Your task to perform on an android device: delete browsing data in the chrome app Image 0: 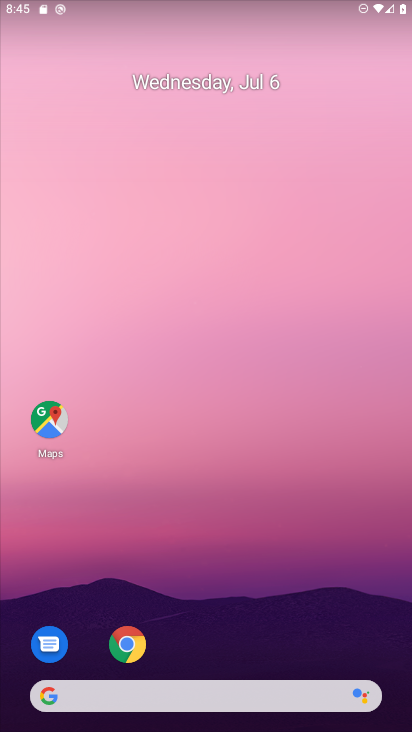
Step 0: click (138, 660)
Your task to perform on an android device: delete browsing data in the chrome app Image 1: 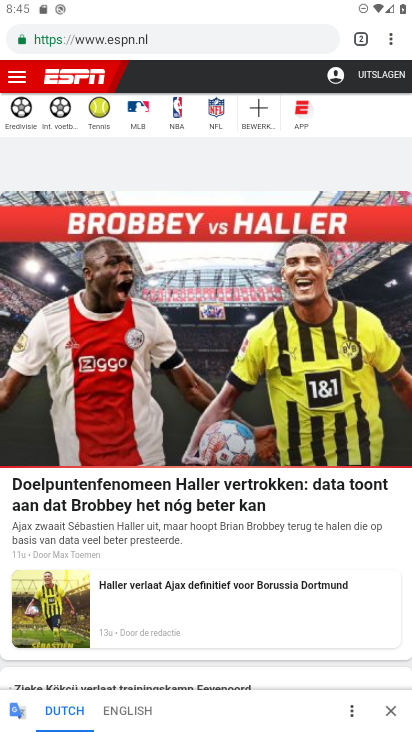
Step 1: click (388, 38)
Your task to perform on an android device: delete browsing data in the chrome app Image 2: 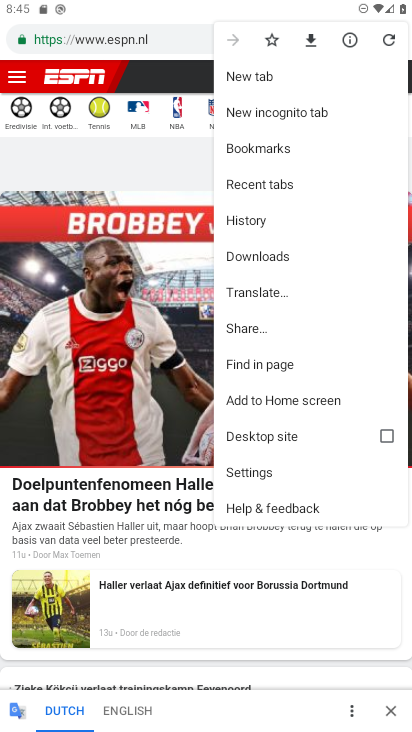
Step 2: click (249, 226)
Your task to perform on an android device: delete browsing data in the chrome app Image 3: 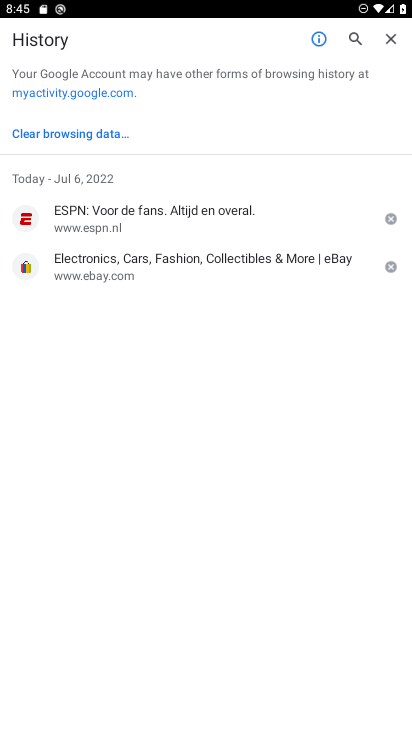
Step 3: click (65, 126)
Your task to perform on an android device: delete browsing data in the chrome app Image 4: 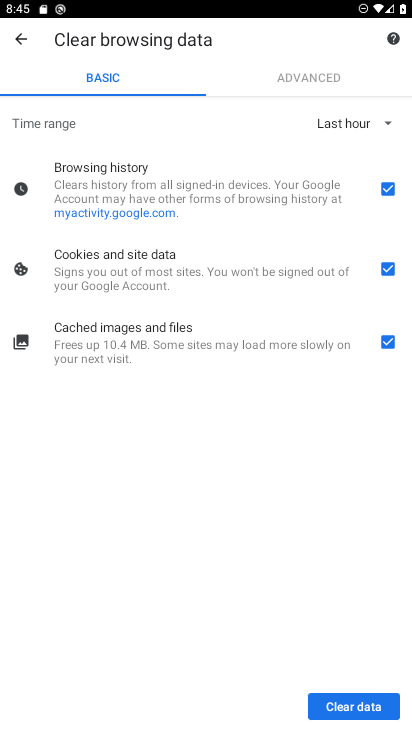
Step 4: click (375, 707)
Your task to perform on an android device: delete browsing data in the chrome app Image 5: 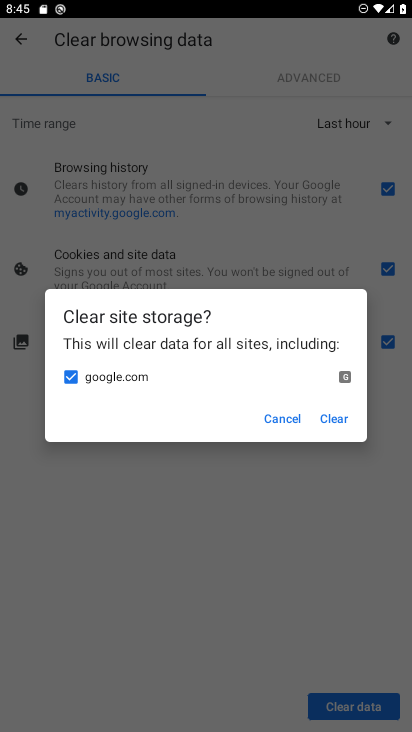
Step 5: click (330, 412)
Your task to perform on an android device: delete browsing data in the chrome app Image 6: 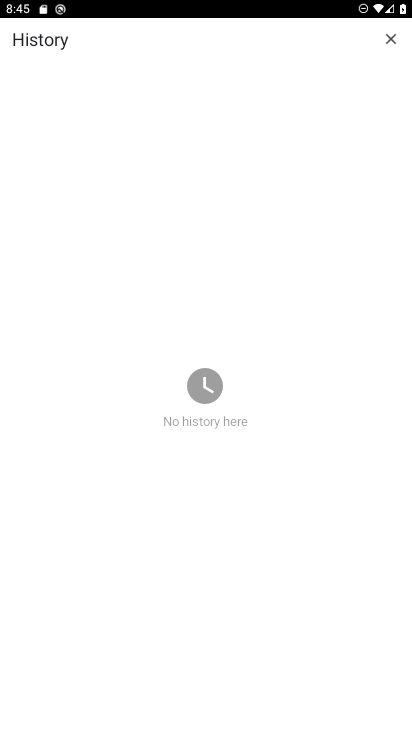
Step 6: task complete